Your task to perform on an android device: Is it going to rain tomorrow? Image 0: 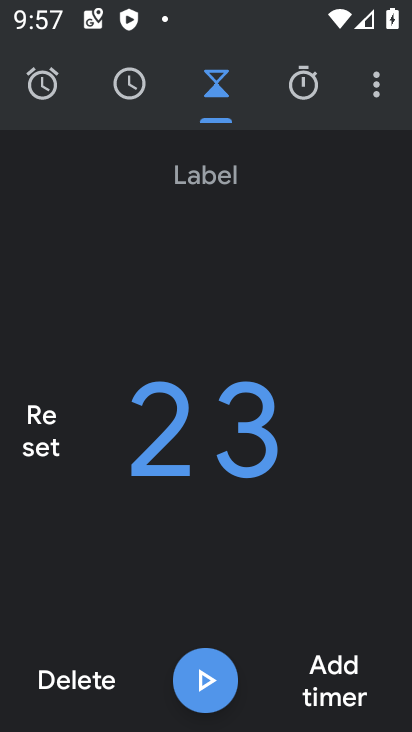
Step 0: press home button
Your task to perform on an android device: Is it going to rain tomorrow? Image 1: 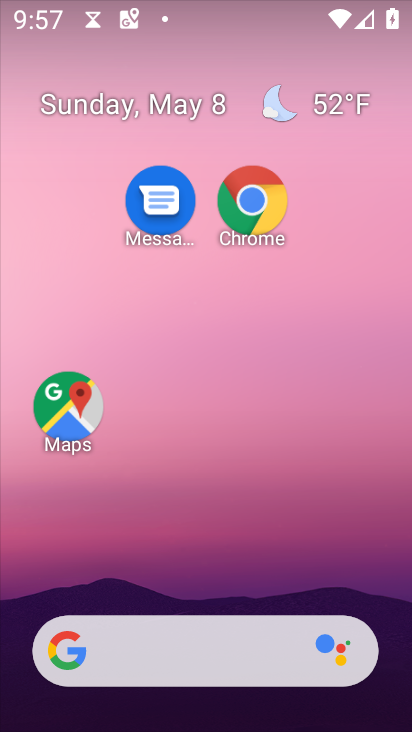
Step 1: click (179, 654)
Your task to perform on an android device: Is it going to rain tomorrow? Image 2: 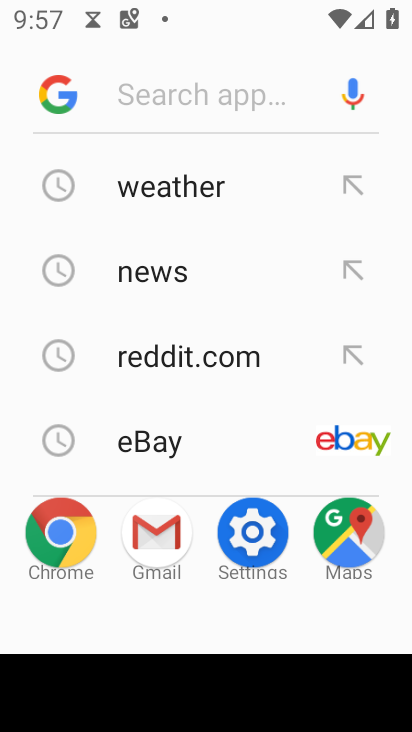
Step 2: click (156, 202)
Your task to perform on an android device: Is it going to rain tomorrow? Image 3: 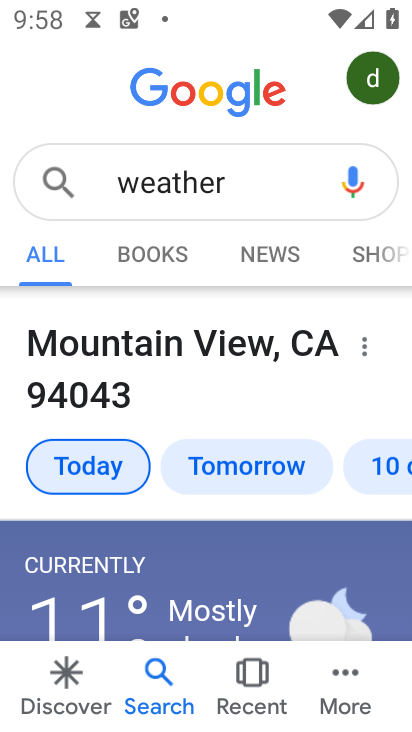
Step 3: task complete